Your task to perform on an android device: Go to calendar. Show me events next week Image 0: 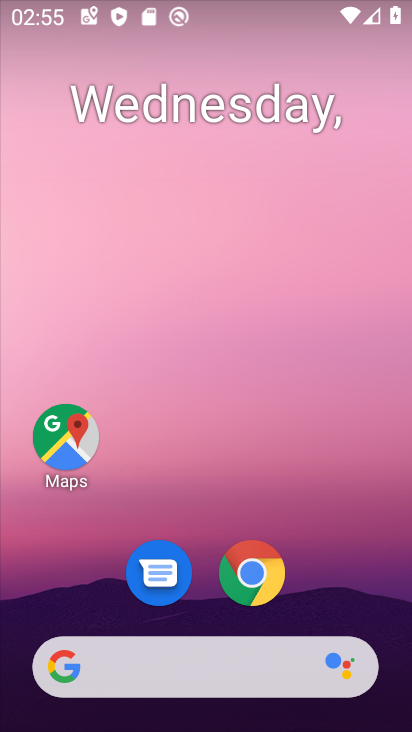
Step 0: drag from (352, 574) to (261, 56)
Your task to perform on an android device: Go to calendar. Show me events next week Image 1: 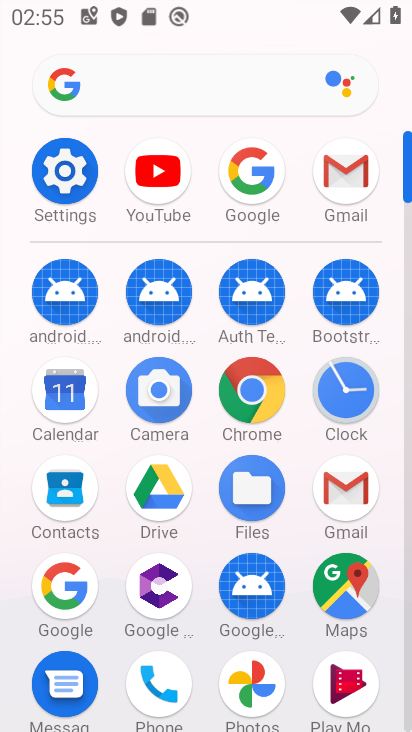
Step 1: click (66, 392)
Your task to perform on an android device: Go to calendar. Show me events next week Image 2: 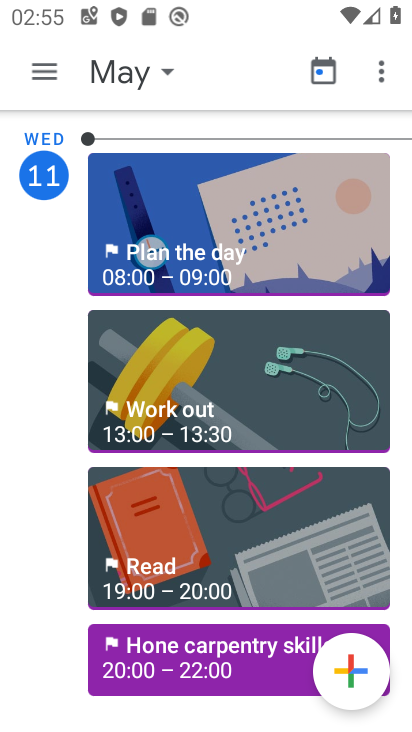
Step 2: click (170, 71)
Your task to perform on an android device: Go to calendar. Show me events next week Image 3: 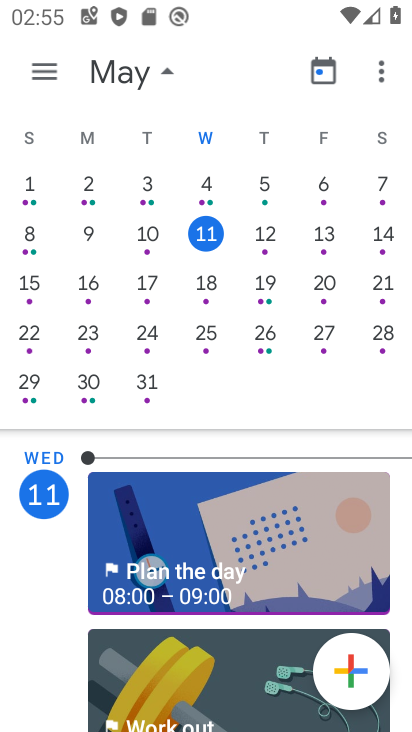
Step 3: click (84, 286)
Your task to perform on an android device: Go to calendar. Show me events next week Image 4: 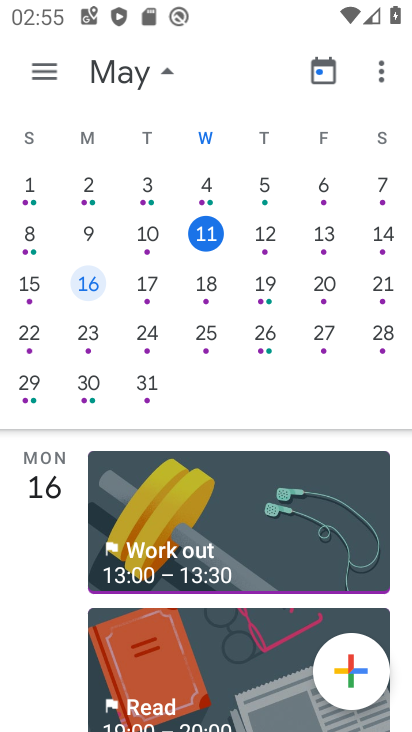
Step 4: click (35, 64)
Your task to perform on an android device: Go to calendar. Show me events next week Image 5: 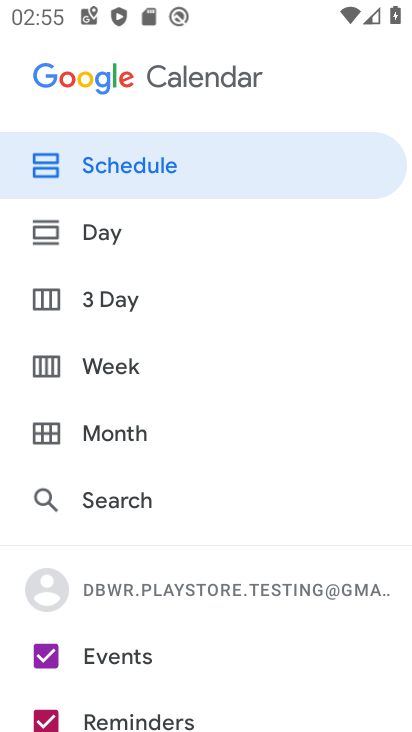
Step 5: click (123, 358)
Your task to perform on an android device: Go to calendar. Show me events next week Image 6: 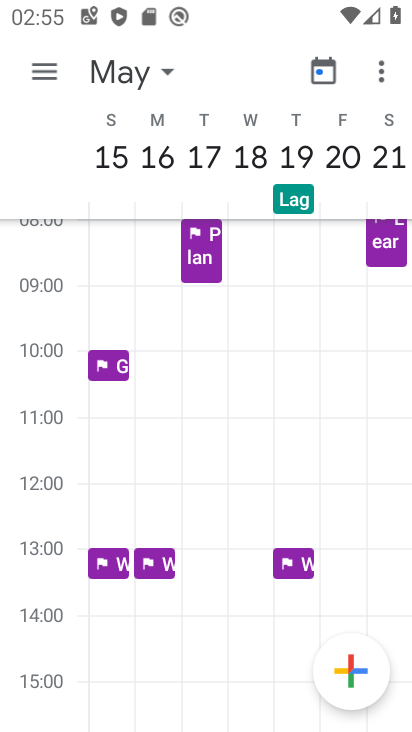
Step 6: task complete